Your task to perform on an android device: Open Chrome and go to settings Image 0: 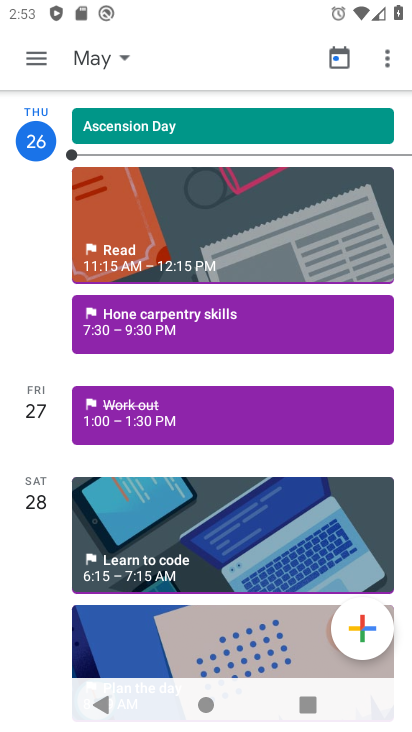
Step 0: press home button
Your task to perform on an android device: Open Chrome and go to settings Image 1: 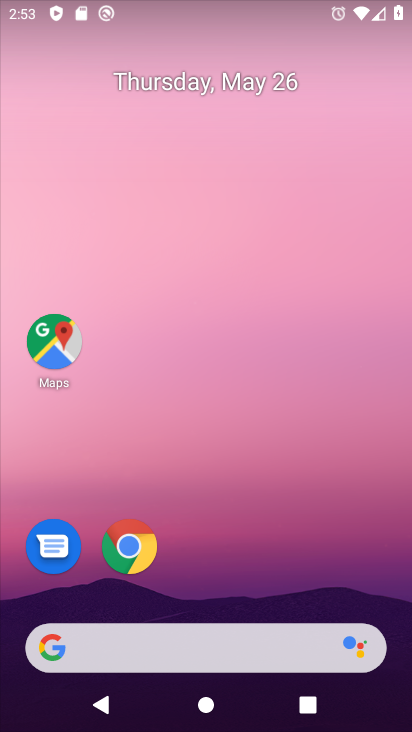
Step 1: click (134, 539)
Your task to perform on an android device: Open Chrome and go to settings Image 2: 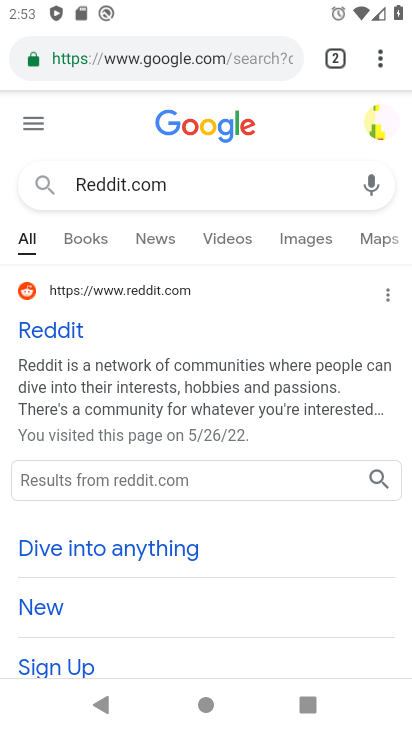
Step 2: click (376, 56)
Your task to perform on an android device: Open Chrome and go to settings Image 3: 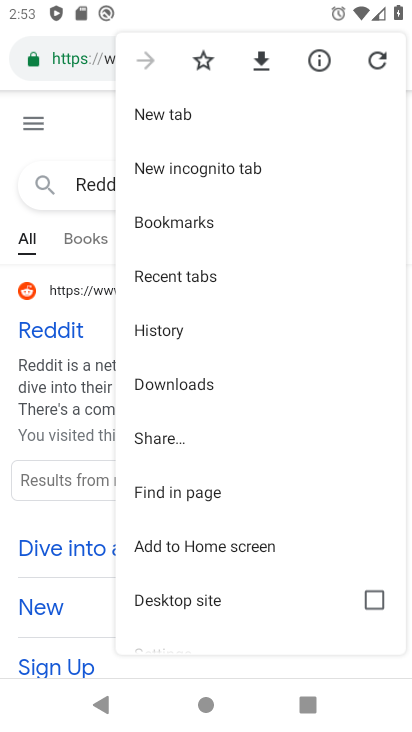
Step 3: drag from (278, 581) to (302, 347)
Your task to perform on an android device: Open Chrome and go to settings Image 4: 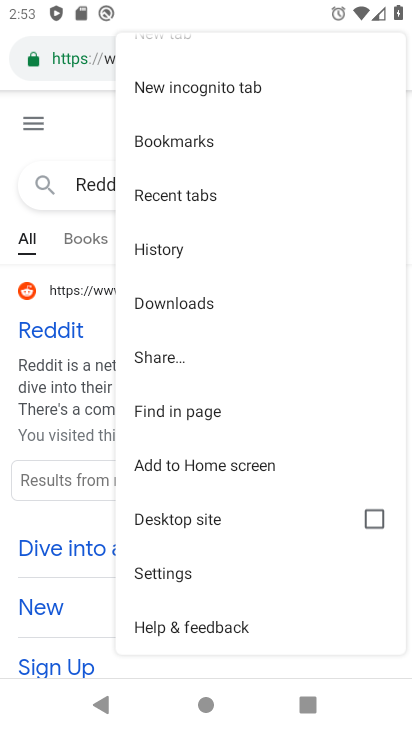
Step 4: click (167, 569)
Your task to perform on an android device: Open Chrome and go to settings Image 5: 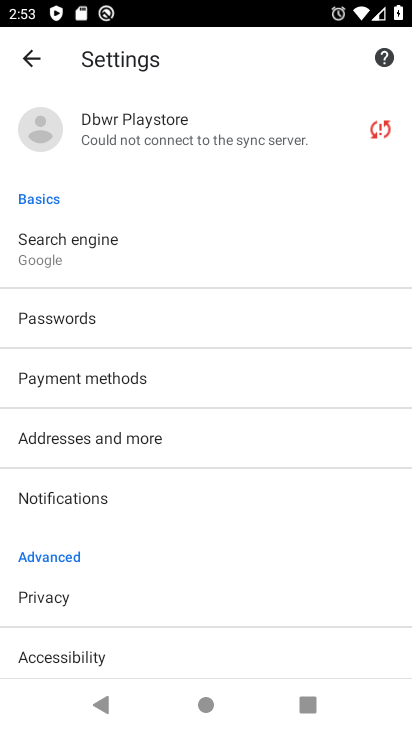
Step 5: task complete